Your task to perform on an android device: Open network settings Image 0: 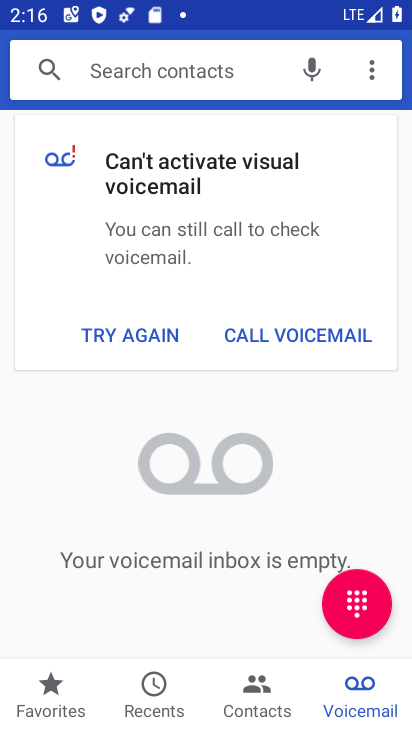
Step 0: press home button
Your task to perform on an android device: Open network settings Image 1: 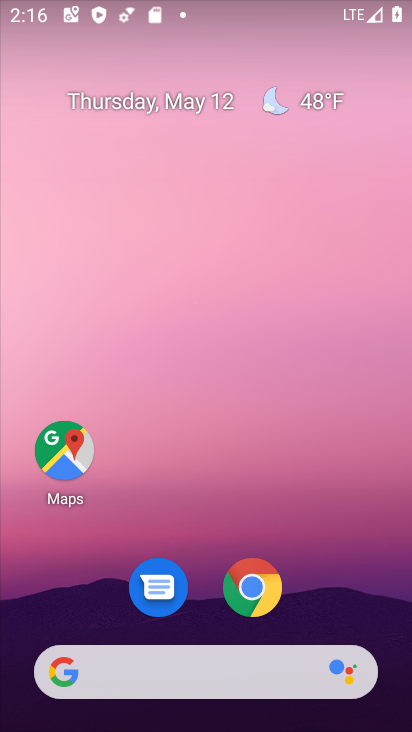
Step 1: drag from (229, 648) to (239, 168)
Your task to perform on an android device: Open network settings Image 2: 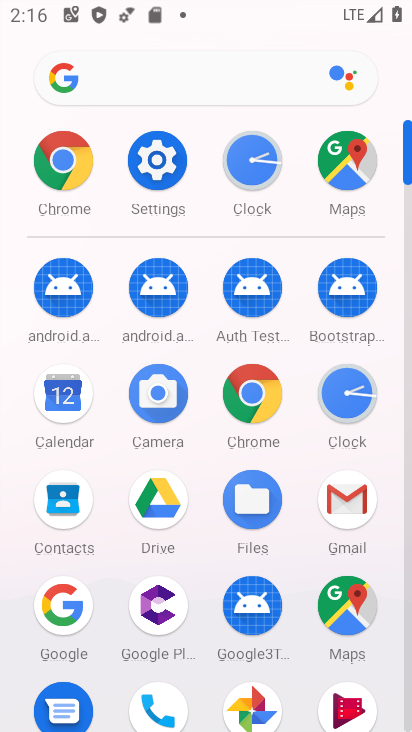
Step 2: click (159, 163)
Your task to perform on an android device: Open network settings Image 3: 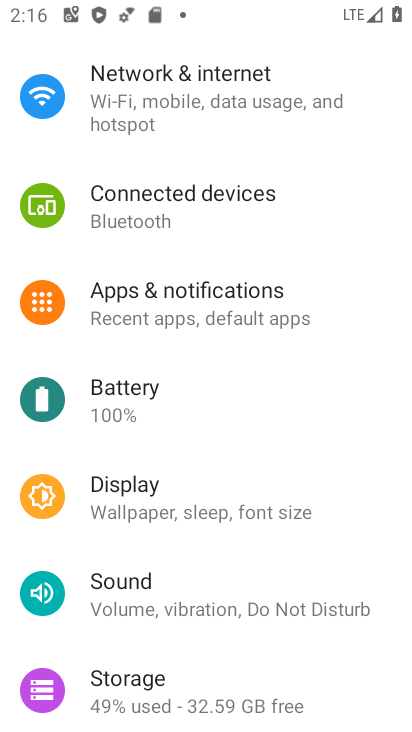
Step 3: drag from (212, 268) to (210, 506)
Your task to perform on an android device: Open network settings Image 4: 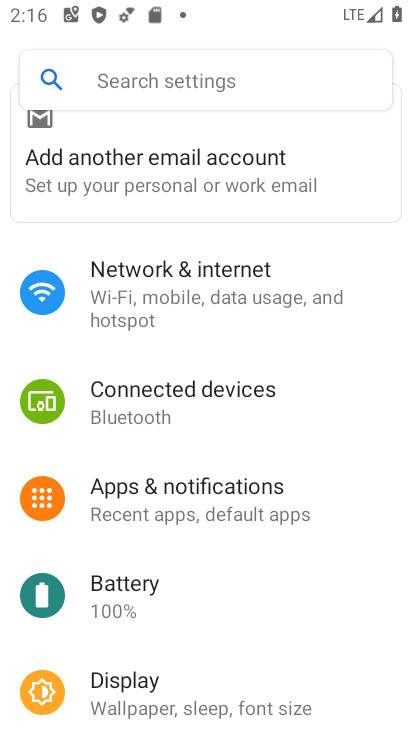
Step 4: click (248, 306)
Your task to perform on an android device: Open network settings Image 5: 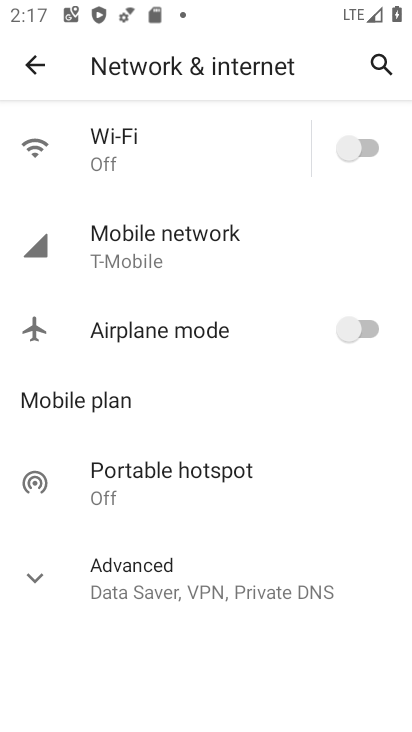
Step 5: click (189, 261)
Your task to perform on an android device: Open network settings Image 6: 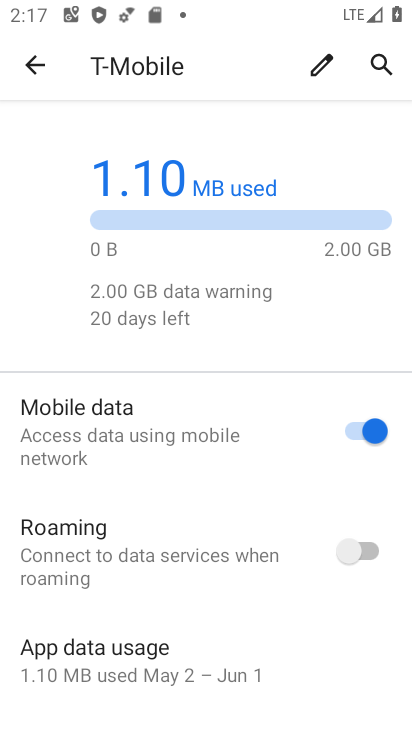
Step 6: task complete